Your task to perform on an android device: allow cookies in the chrome app Image 0: 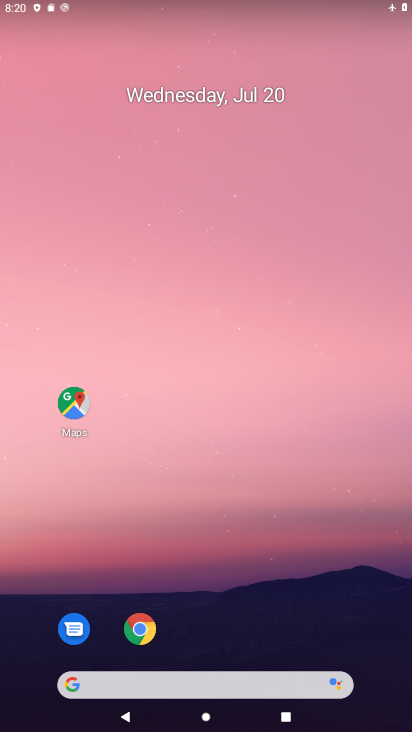
Step 0: drag from (225, 675) to (155, 124)
Your task to perform on an android device: allow cookies in the chrome app Image 1: 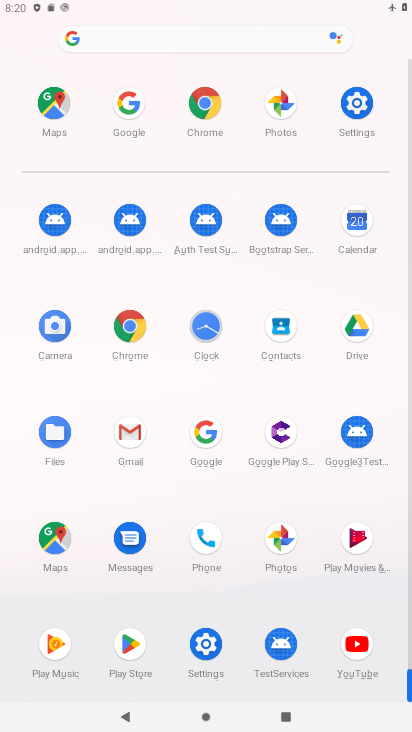
Step 1: click (356, 95)
Your task to perform on an android device: allow cookies in the chrome app Image 2: 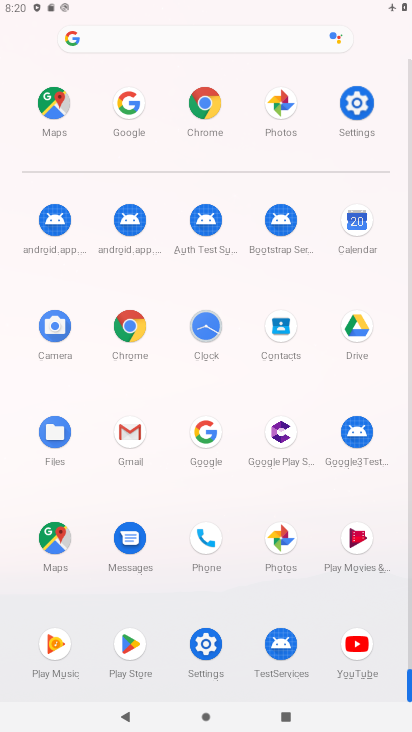
Step 2: click (360, 95)
Your task to perform on an android device: allow cookies in the chrome app Image 3: 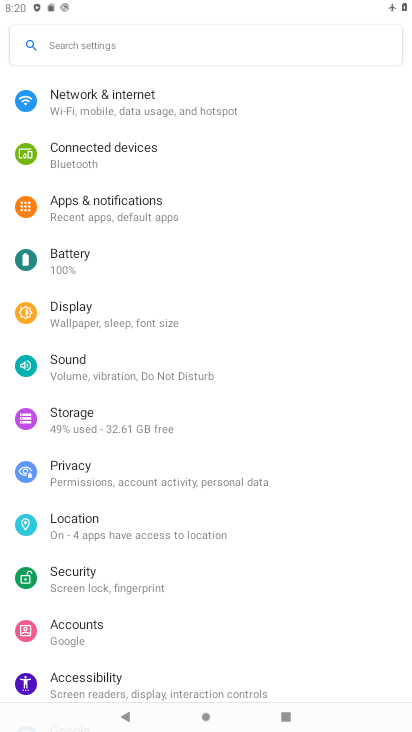
Step 3: click (95, 115)
Your task to perform on an android device: allow cookies in the chrome app Image 4: 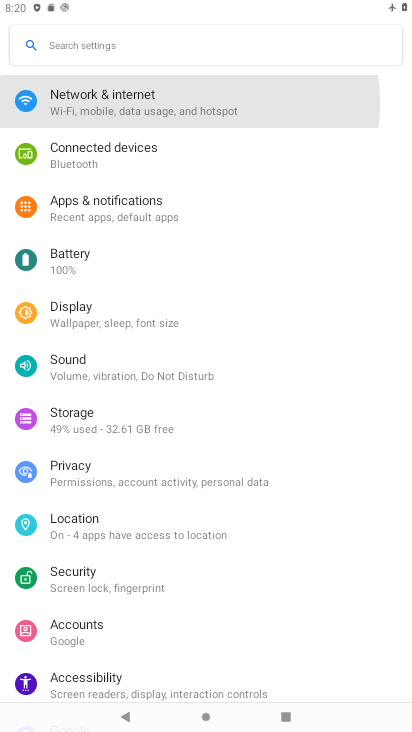
Step 4: click (98, 116)
Your task to perform on an android device: allow cookies in the chrome app Image 5: 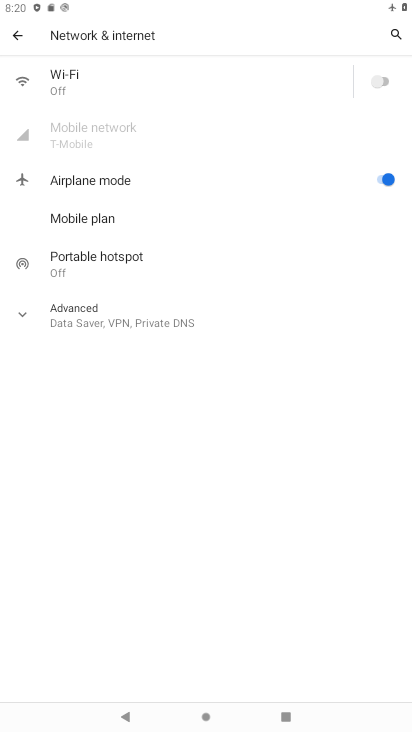
Step 5: click (386, 78)
Your task to perform on an android device: allow cookies in the chrome app Image 6: 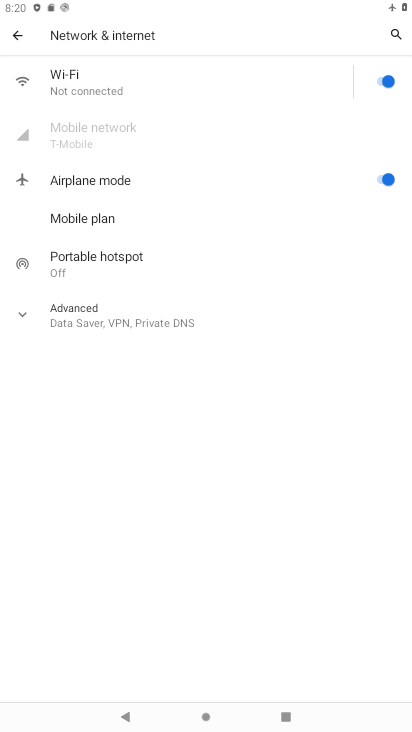
Step 6: click (383, 181)
Your task to perform on an android device: allow cookies in the chrome app Image 7: 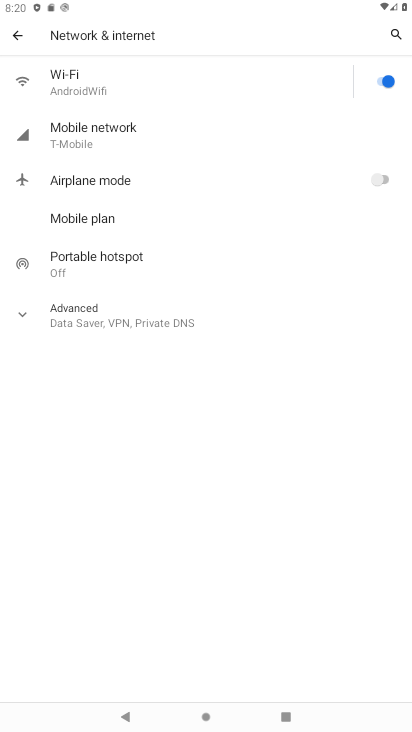
Step 7: press back button
Your task to perform on an android device: allow cookies in the chrome app Image 8: 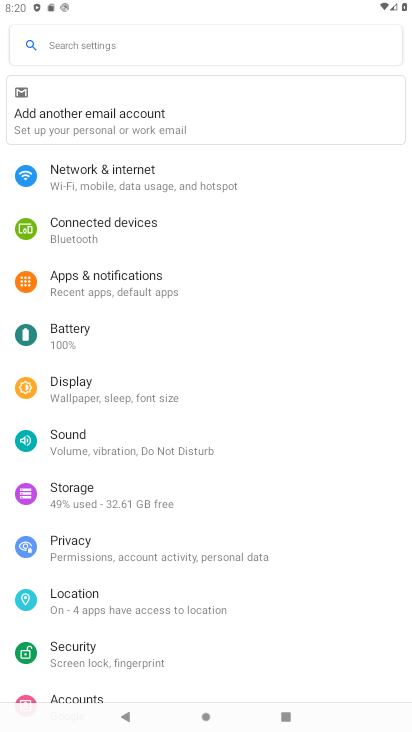
Step 8: press home button
Your task to perform on an android device: allow cookies in the chrome app Image 9: 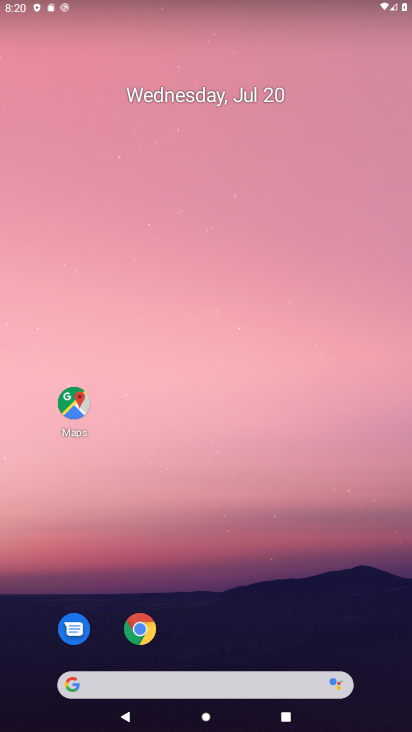
Step 9: drag from (221, 673) to (119, 41)
Your task to perform on an android device: allow cookies in the chrome app Image 10: 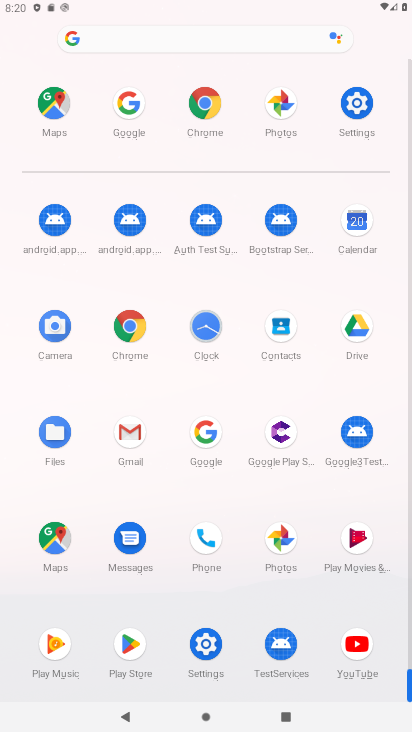
Step 10: click (193, 96)
Your task to perform on an android device: allow cookies in the chrome app Image 11: 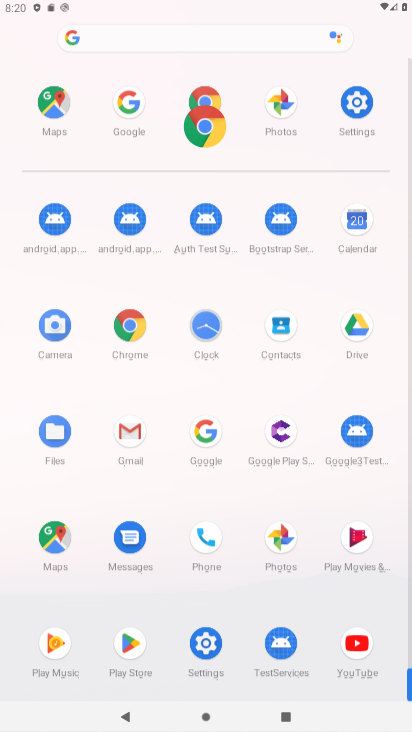
Step 11: click (206, 110)
Your task to perform on an android device: allow cookies in the chrome app Image 12: 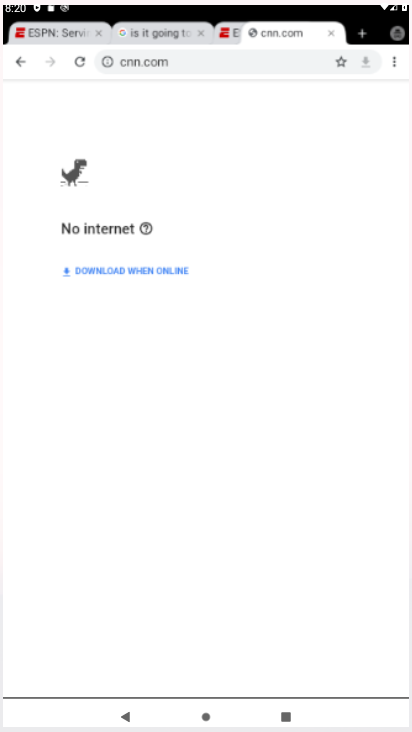
Step 12: click (211, 114)
Your task to perform on an android device: allow cookies in the chrome app Image 13: 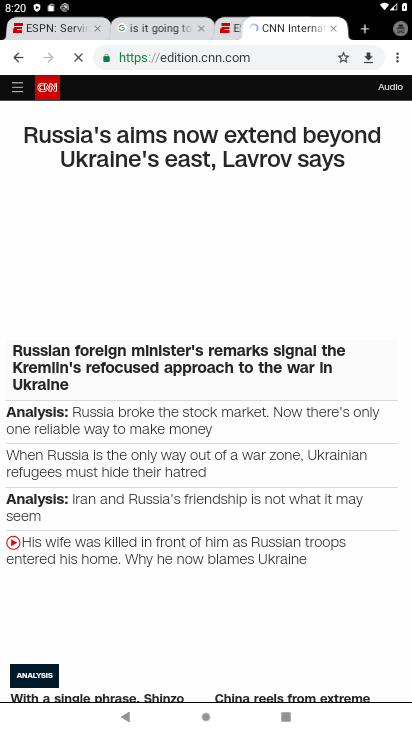
Step 13: drag from (396, 56) to (281, 352)
Your task to perform on an android device: allow cookies in the chrome app Image 14: 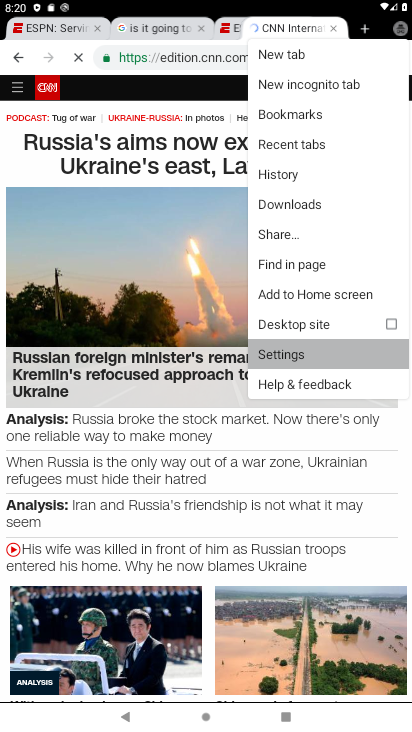
Step 14: click (287, 357)
Your task to perform on an android device: allow cookies in the chrome app Image 15: 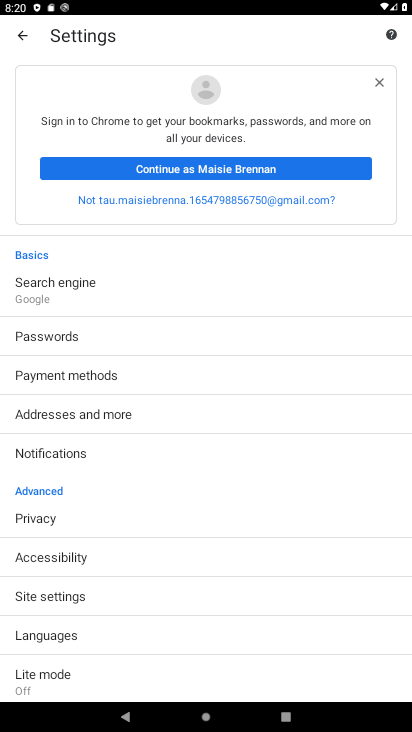
Step 15: click (39, 585)
Your task to perform on an android device: allow cookies in the chrome app Image 16: 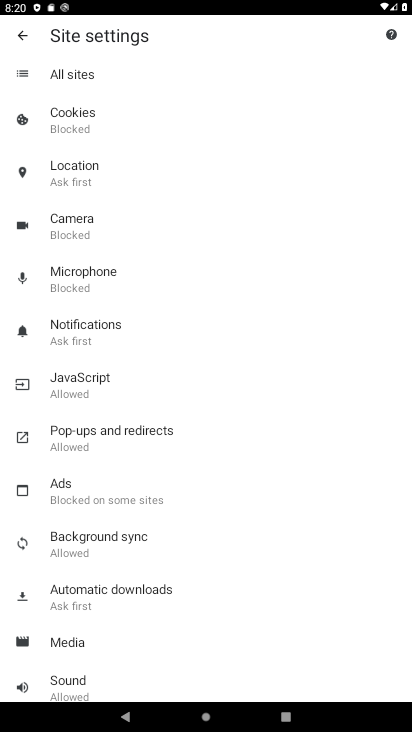
Step 16: click (65, 124)
Your task to perform on an android device: allow cookies in the chrome app Image 17: 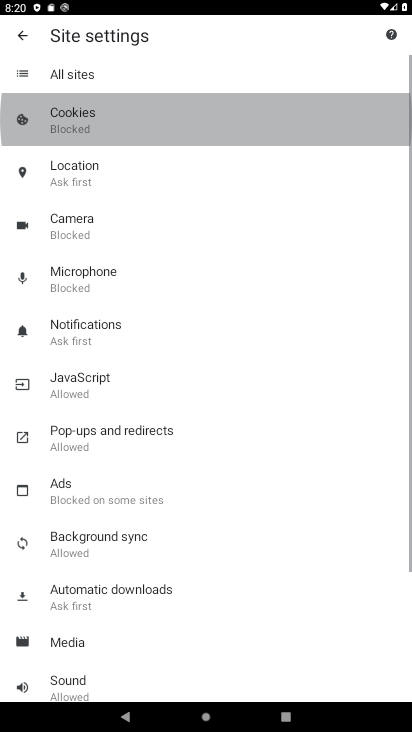
Step 17: click (68, 122)
Your task to perform on an android device: allow cookies in the chrome app Image 18: 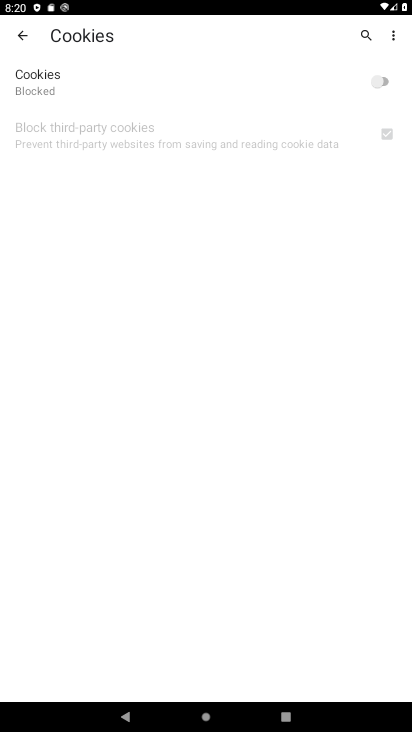
Step 18: click (381, 81)
Your task to perform on an android device: allow cookies in the chrome app Image 19: 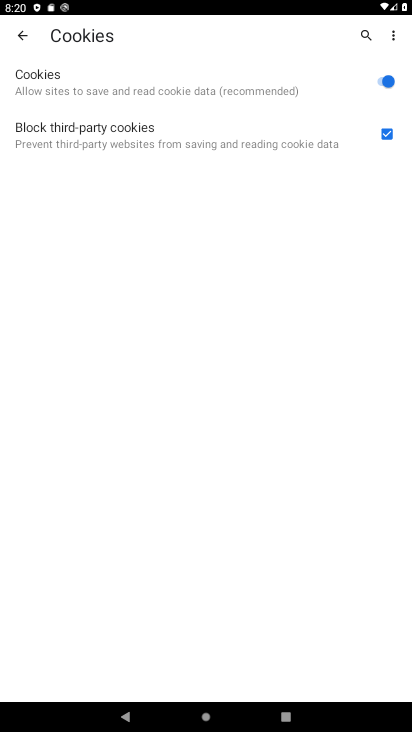
Step 19: task complete